Your task to perform on an android device: toggle javascript in the chrome app Image 0: 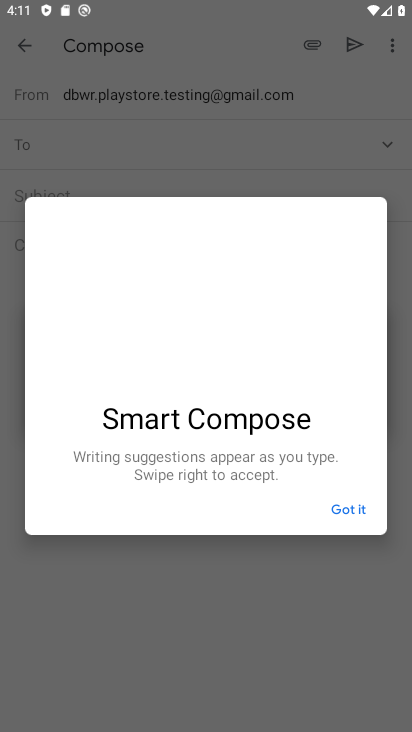
Step 0: press home button
Your task to perform on an android device: toggle javascript in the chrome app Image 1: 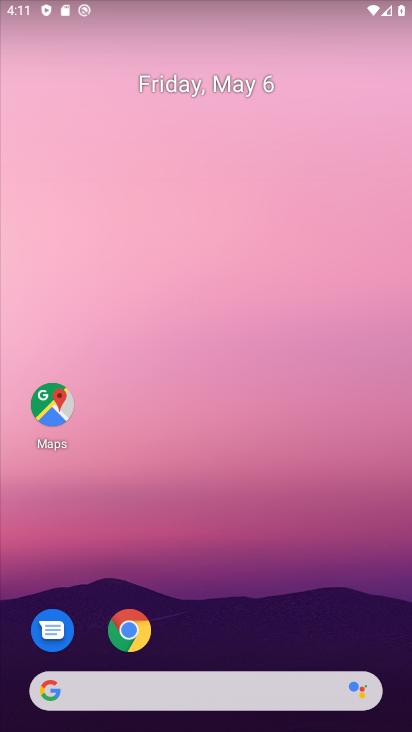
Step 1: drag from (293, 656) to (223, 309)
Your task to perform on an android device: toggle javascript in the chrome app Image 2: 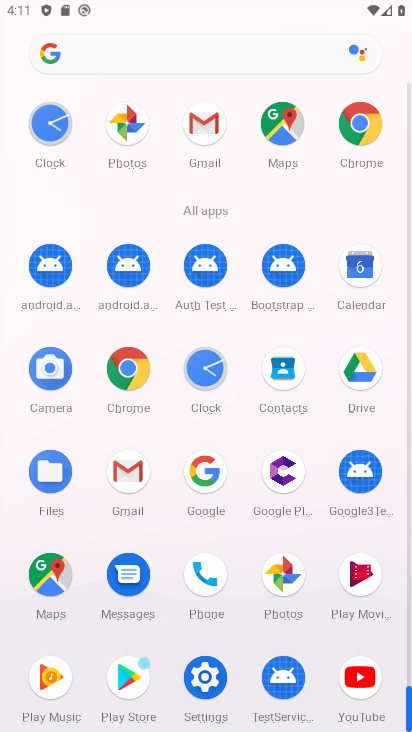
Step 2: click (352, 117)
Your task to perform on an android device: toggle javascript in the chrome app Image 3: 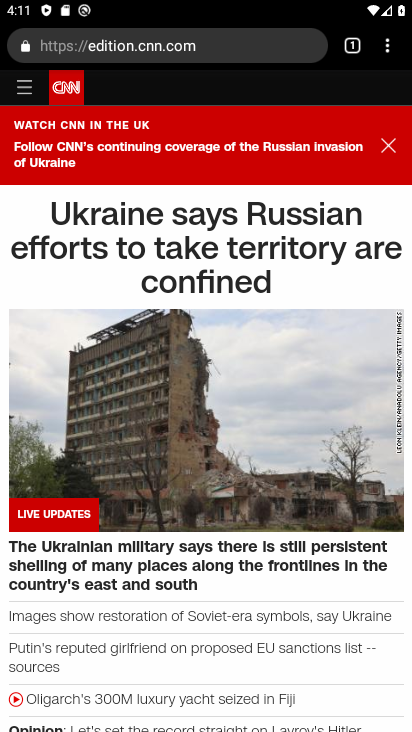
Step 3: click (386, 54)
Your task to perform on an android device: toggle javascript in the chrome app Image 4: 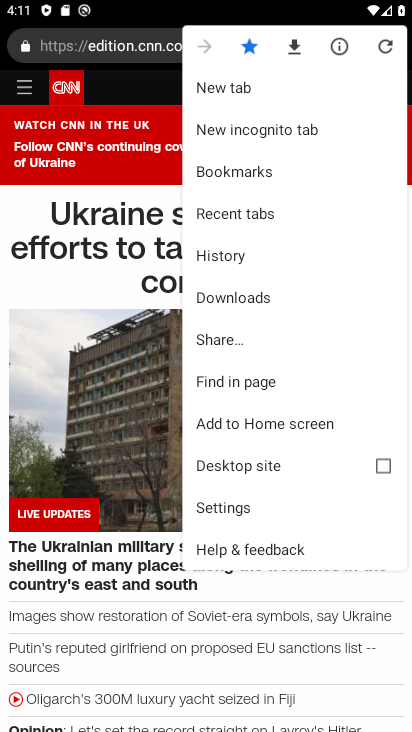
Step 4: drag from (257, 242) to (261, 53)
Your task to perform on an android device: toggle javascript in the chrome app Image 5: 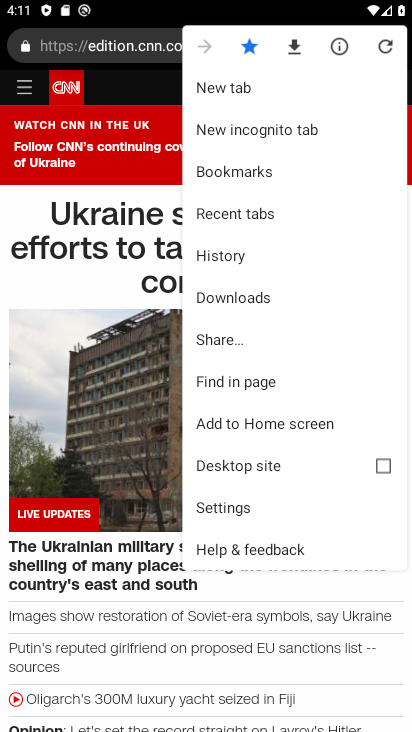
Step 5: drag from (278, 457) to (285, 215)
Your task to perform on an android device: toggle javascript in the chrome app Image 6: 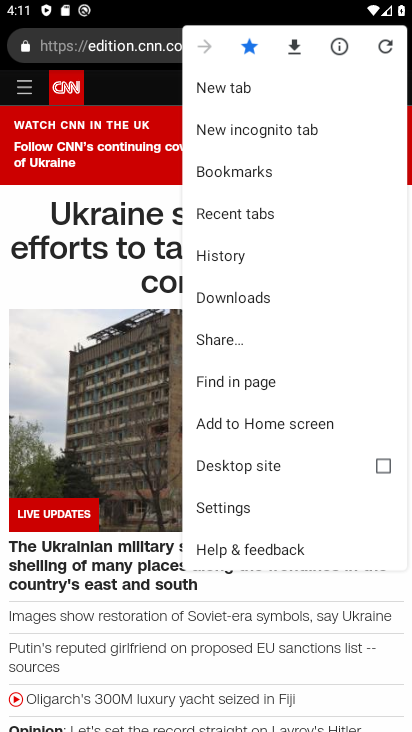
Step 6: click (248, 506)
Your task to perform on an android device: toggle javascript in the chrome app Image 7: 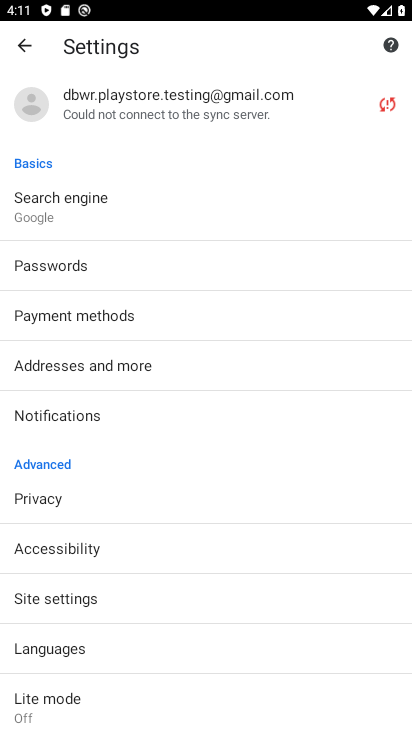
Step 7: click (93, 601)
Your task to perform on an android device: toggle javascript in the chrome app Image 8: 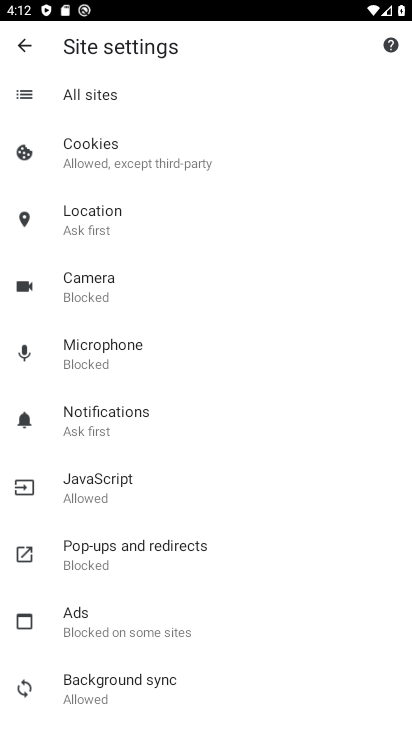
Step 8: click (109, 483)
Your task to perform on an android device: toggle javascript in the chrome app Image 9: 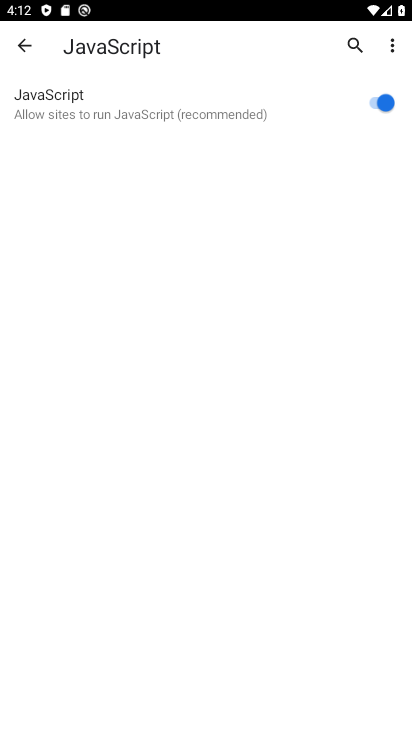
Step 9: click (383, 94)
Your task to perform on an android device: toggle javascript in the chrome app Image 10: 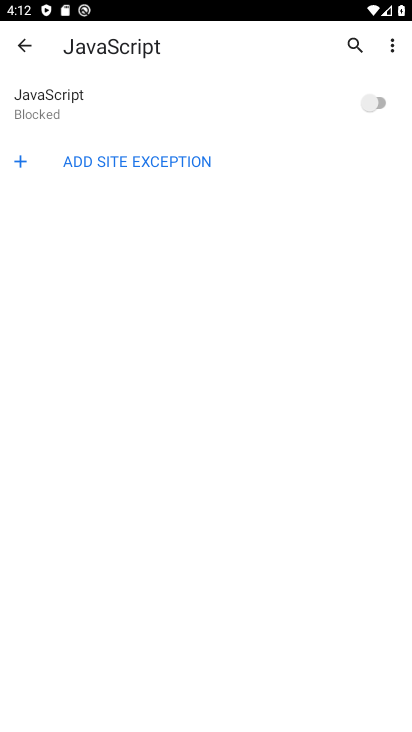
Step 10: task complete